Your task to perform on an android device: turn on the 12-hour format for clock Image 0: 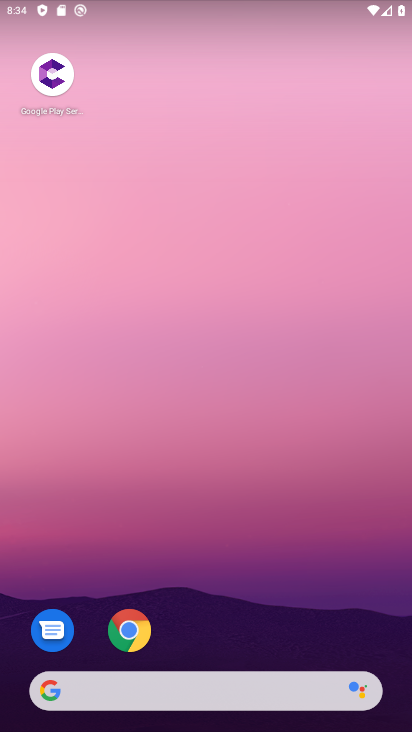
Step 0: drag from (265, 625) to (233, 44)
Your task to perform on an android device: turn on the 12-hour format for clock Image 1: 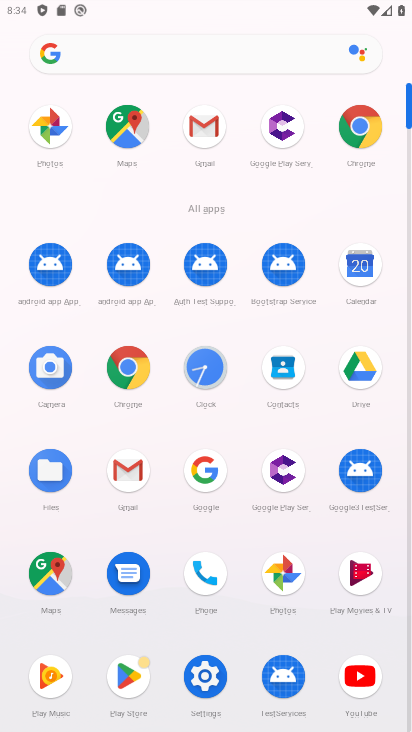
Step 1: click (194, 364)
Your task to perform on an android device: turn on the 12-hour format for clock Image 2: 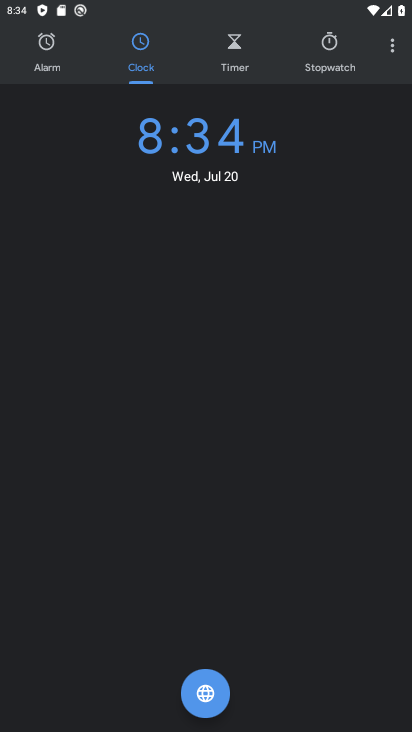
Step 2: click (394, 48)
Your task to perform on an android device: turn on the 12-hour format for clock Image 3: 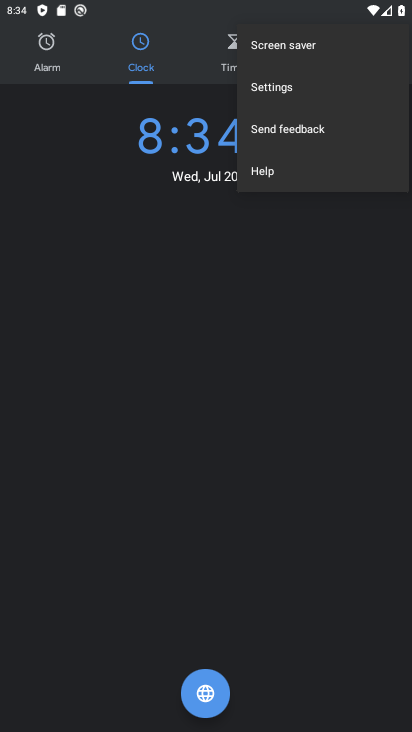
Step 3: click (298, 95)
Your task to perform on an android device: turn on the 12-hour format for clock Image 4: 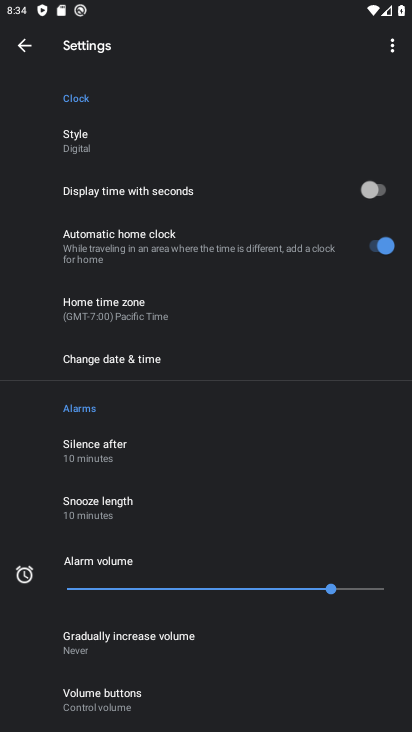
Step 4: click (205, 339)
Your task to perform on an android device: turn on the 12-hour format for clock Image 5: 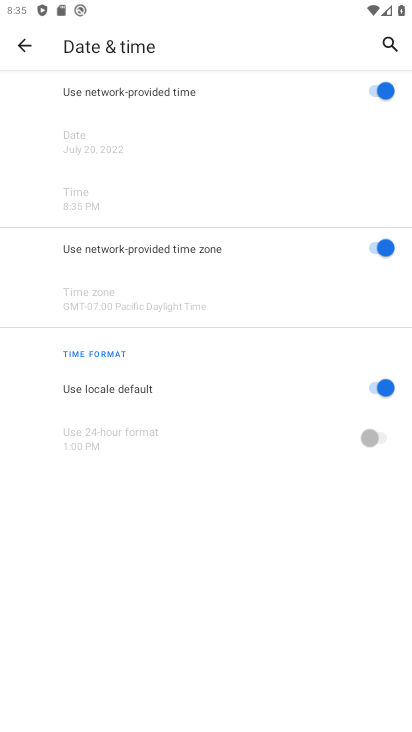
Step 5: task complete